Your task to perform on an android device: Open the map Image 0: 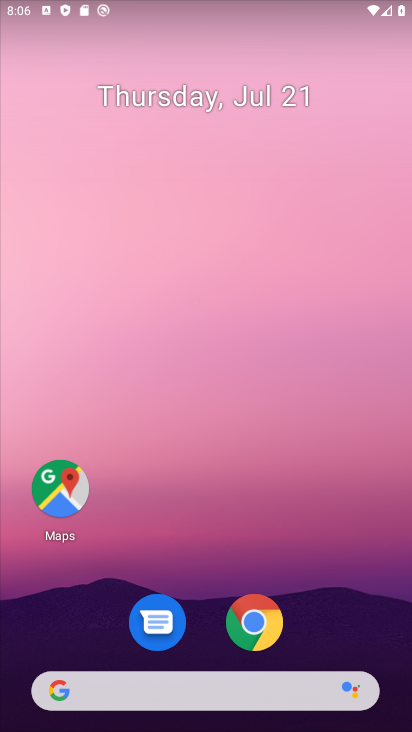
Step 0: click (58, 501)
Your task to perform on an android device: Open the map Image 1: 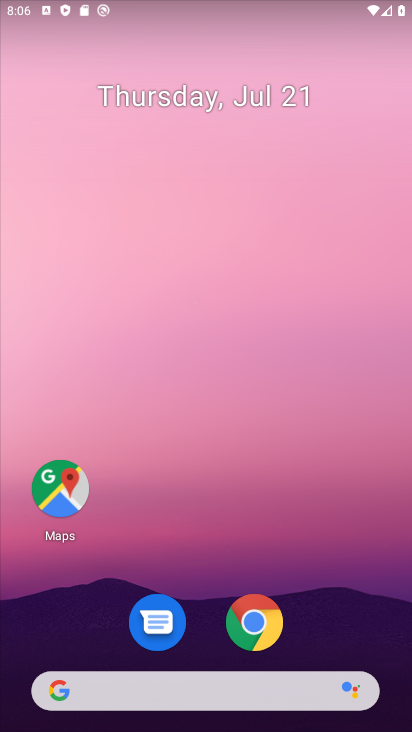
Step 1: click (58, 501)
Your task to perform on an android device: Open the map Image 2: 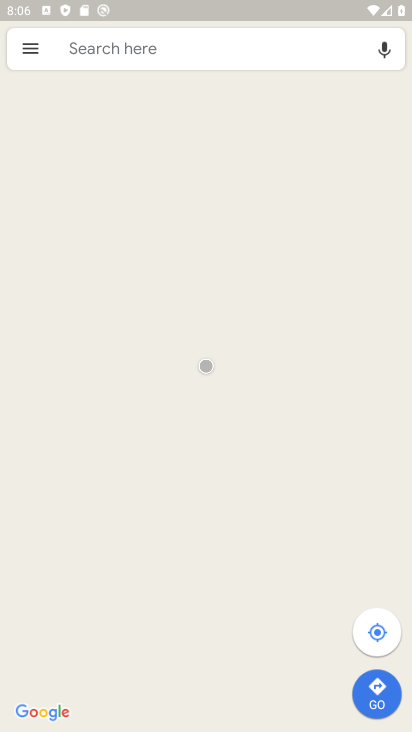
Step 2: task complete